Your task to perform on an android device: set default search engine in the chrome app Image 0: 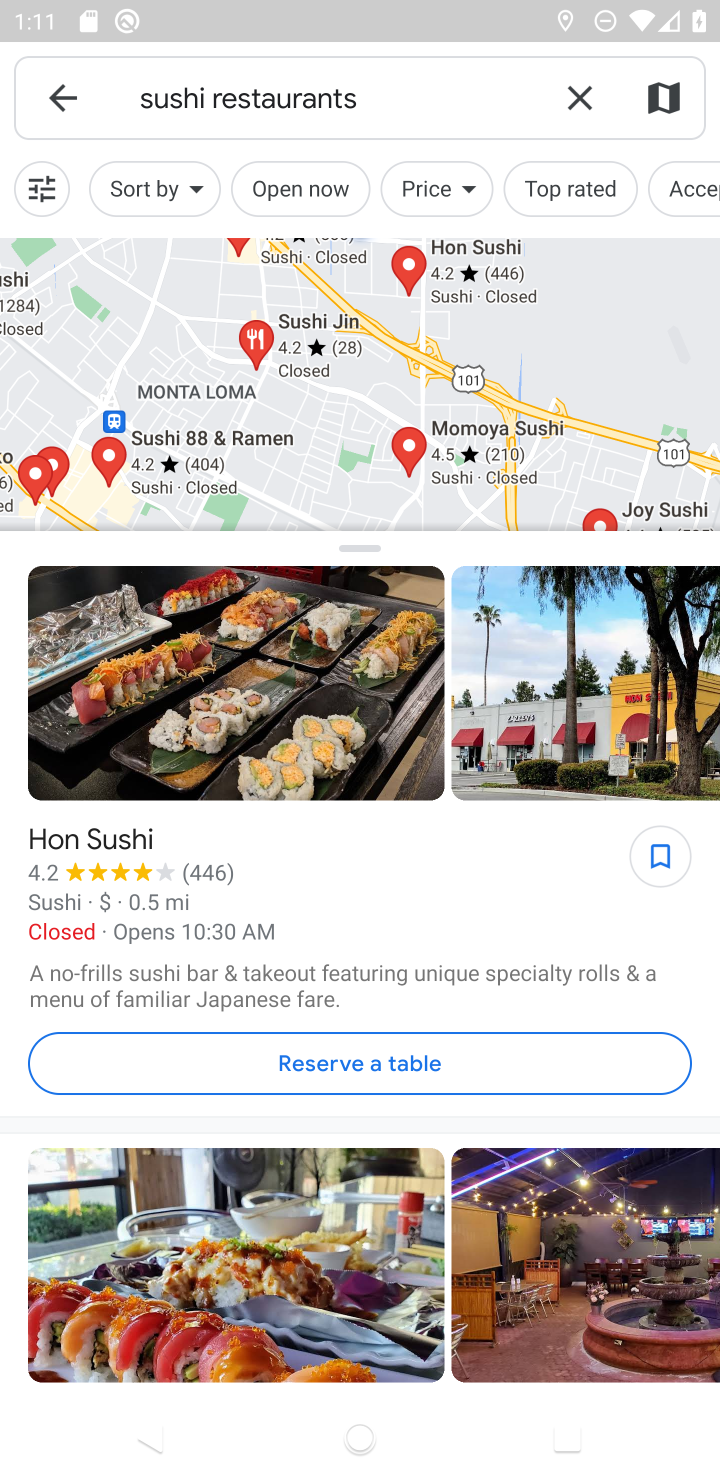
Step 0: press home button
Your task to perform on an android device: set default search engine in the chrome app Image 1: 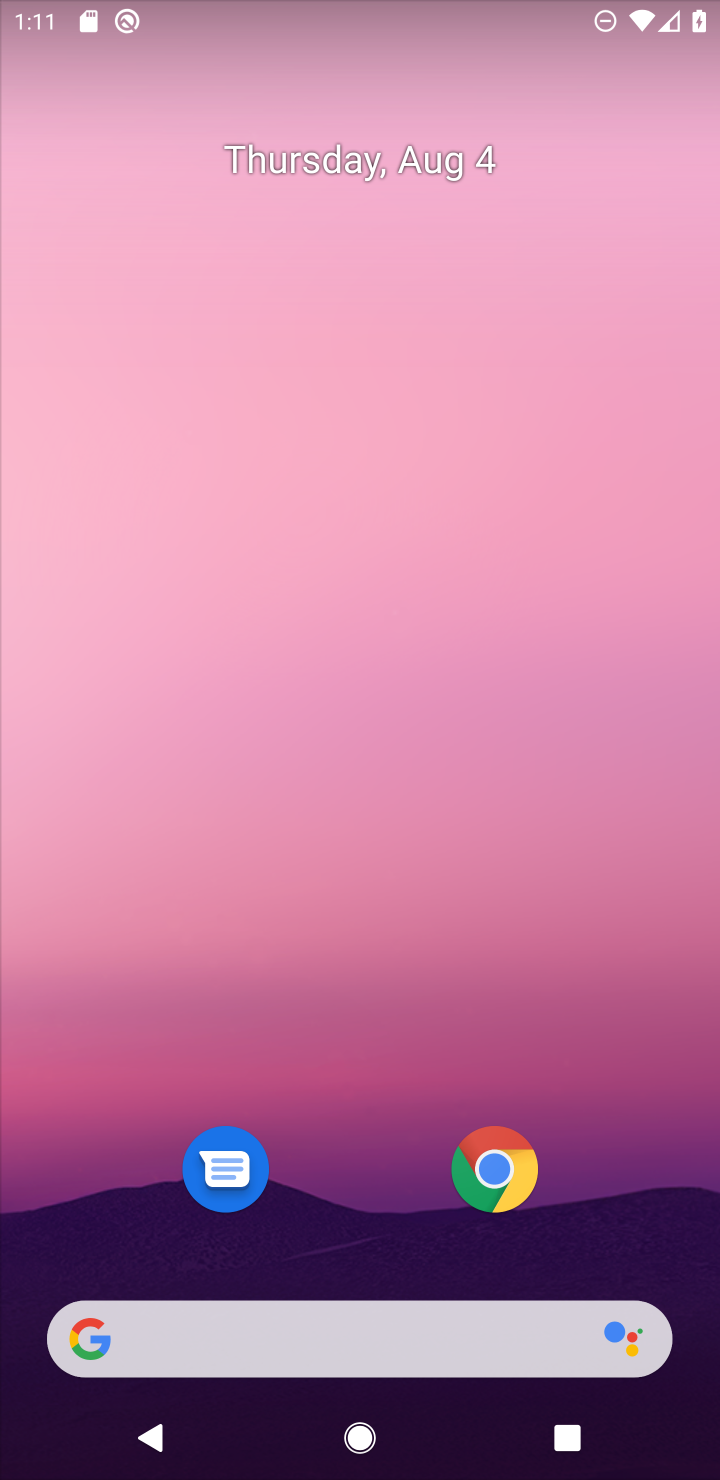
Step 1: click (508, 1183)
Your task to perform on an android device: set default search engine in the chrome app Image 2: 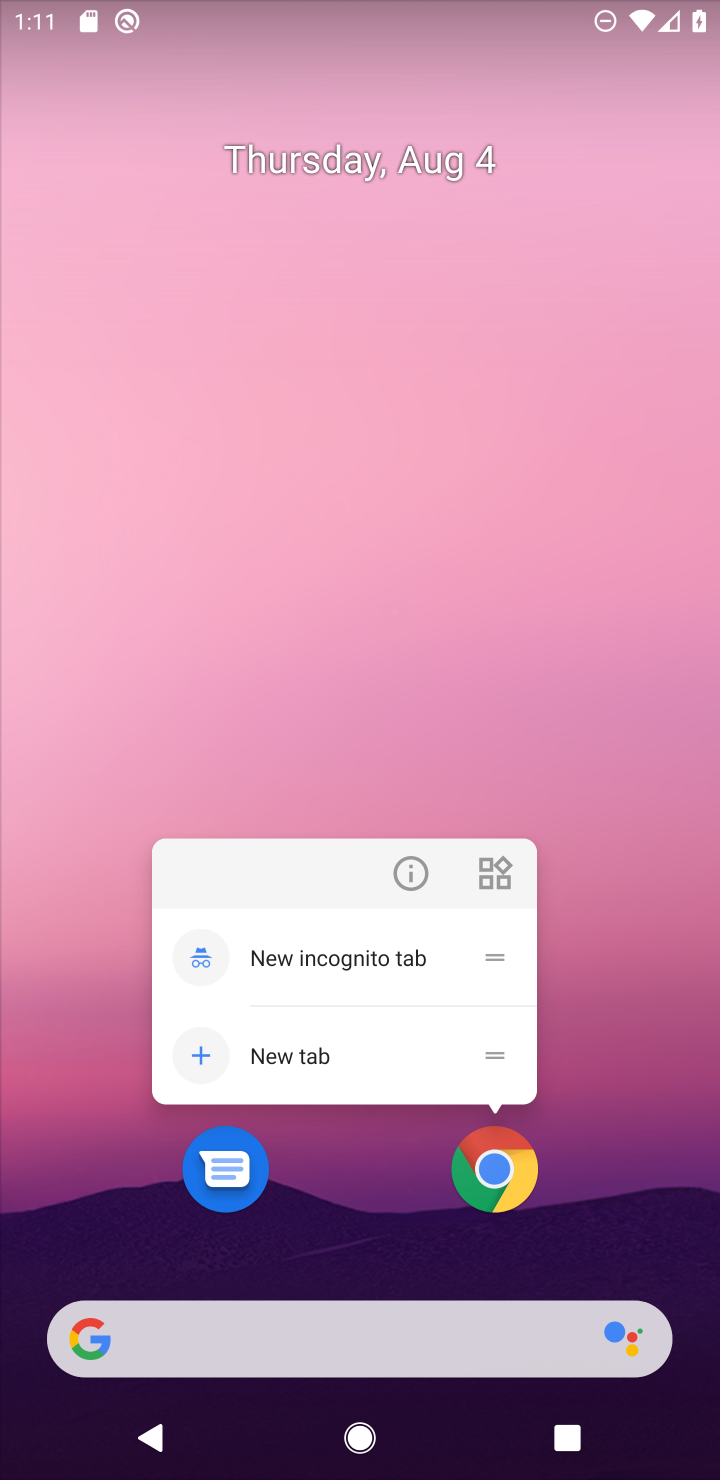
Step 2: click (508, 1183)
Your task to perform on an android device: set default search engine in the chrome app Image 3: 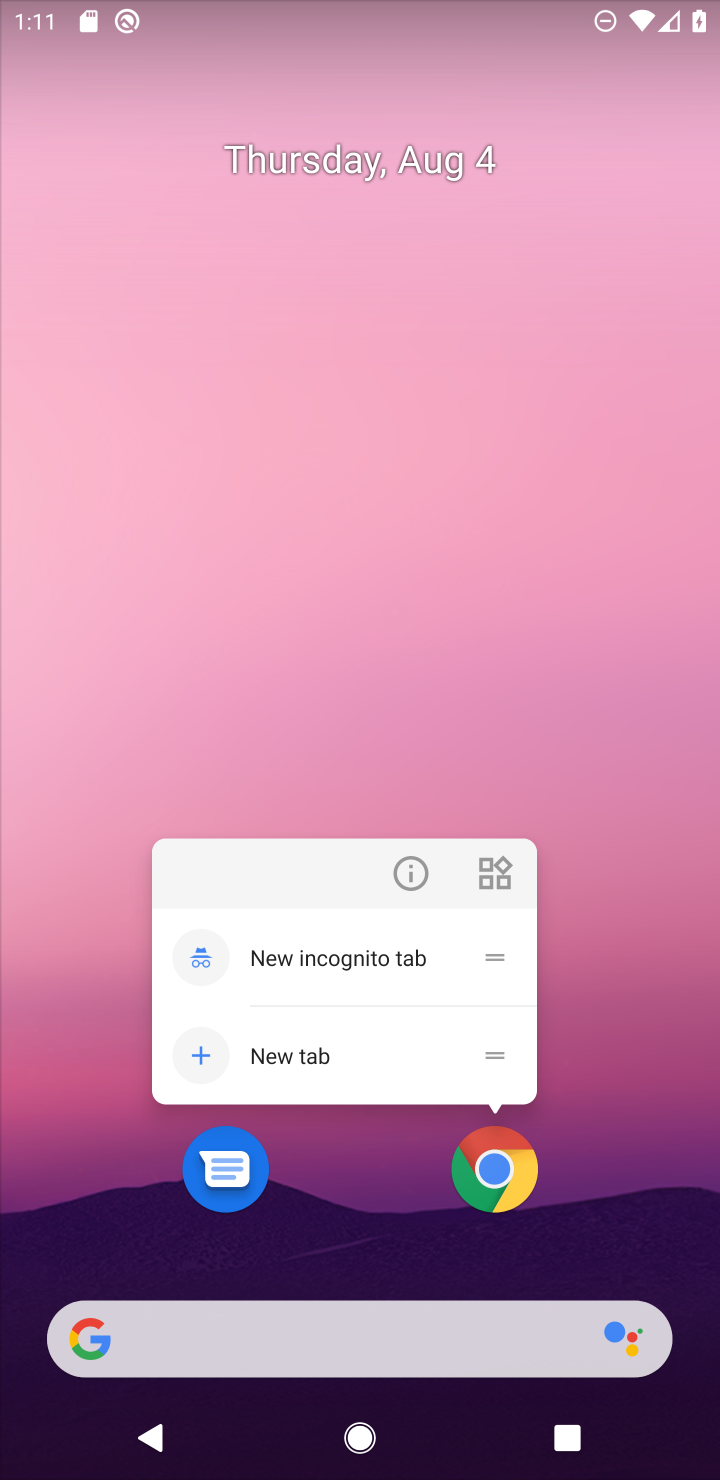
Step 3: click (506, 1186)
Your task to perform on an android device: set default search engine in the chrome app Image 4: 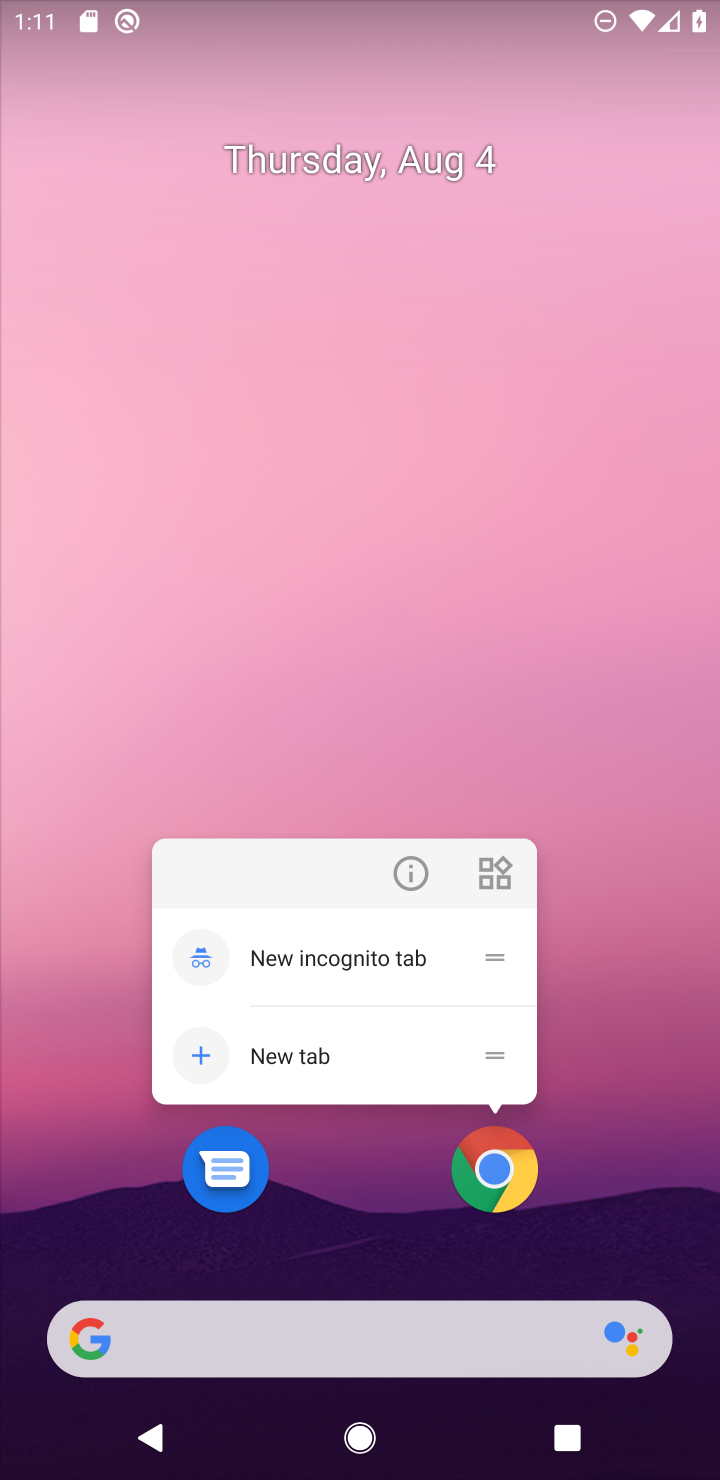
Step 4: click (506, 1186)
Your task to perform on an android device: set default search engine in the chrome app Image 5: 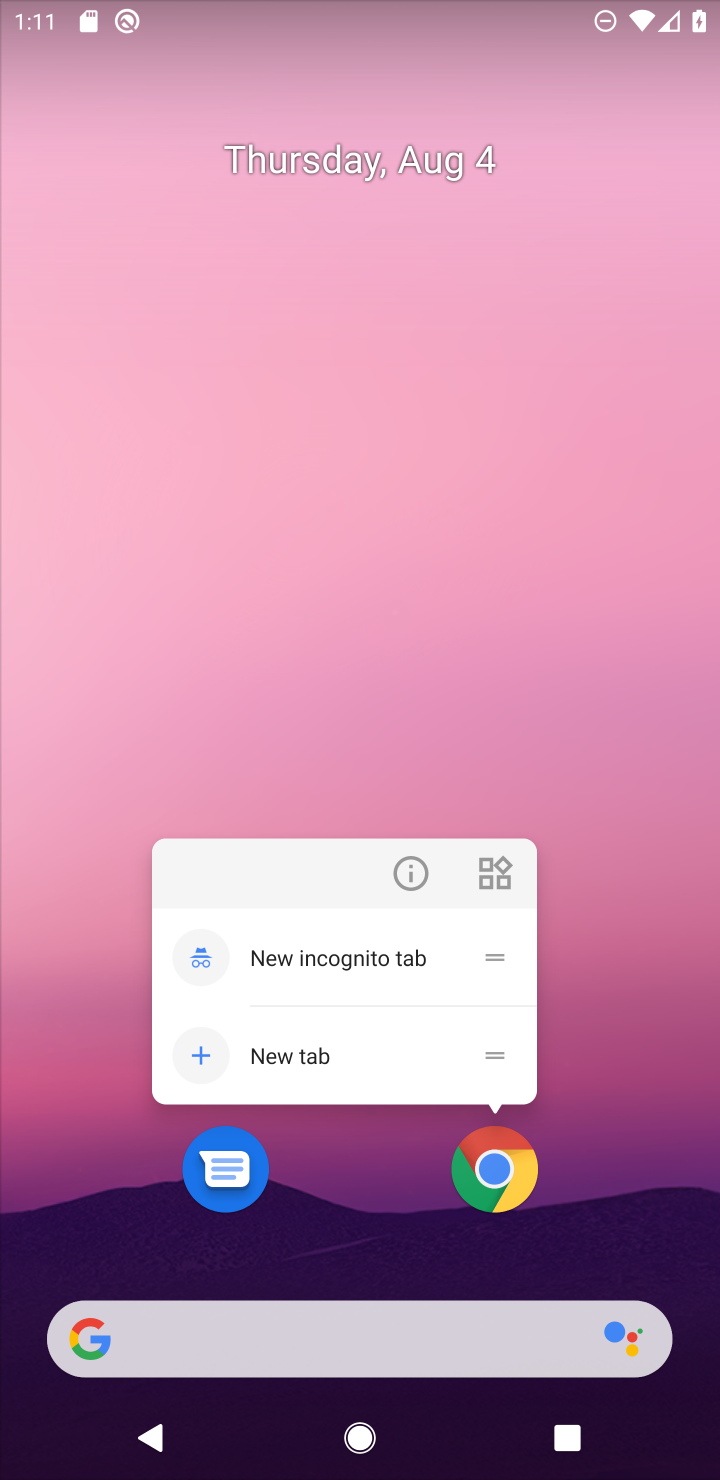
Step 5: click (497, 1177)
Your task to perform on an android device: set default search engine in the chrome app Image 6: 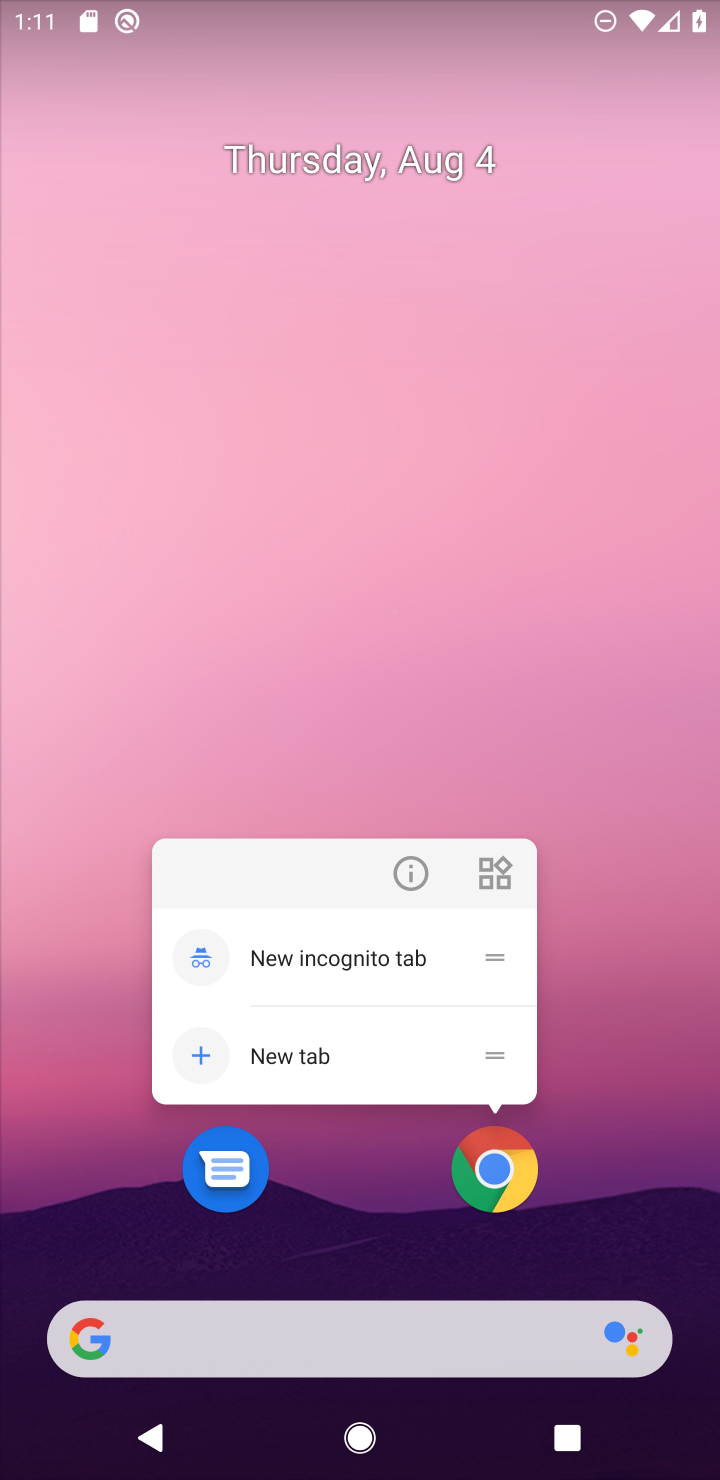
Step 6: click (497, 1177)
Your task to perform on an android device: set default search engine in the chrome app Image 7: 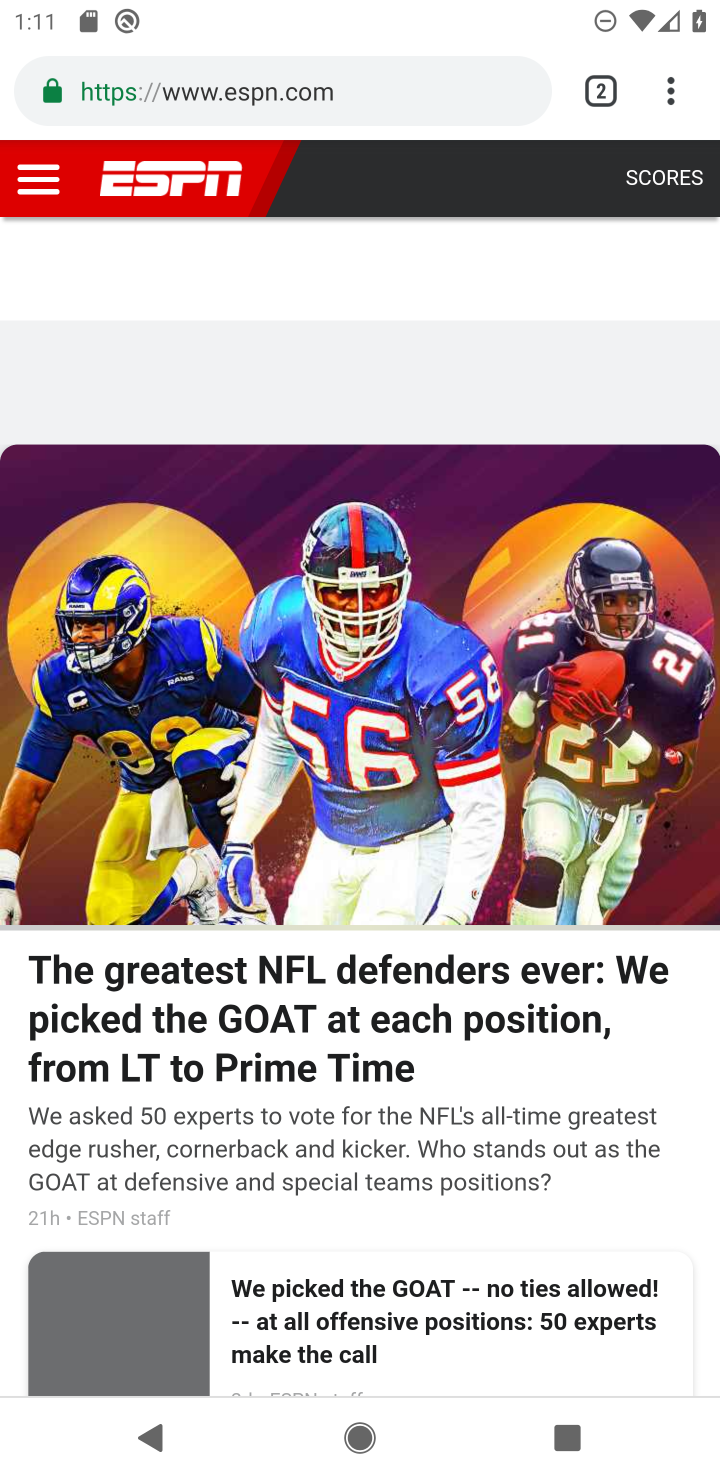
Step 7: drag from (676, 81) to (395, 1082)
Your task to perform on an android device: set default search engine in the chrome app Image 8: 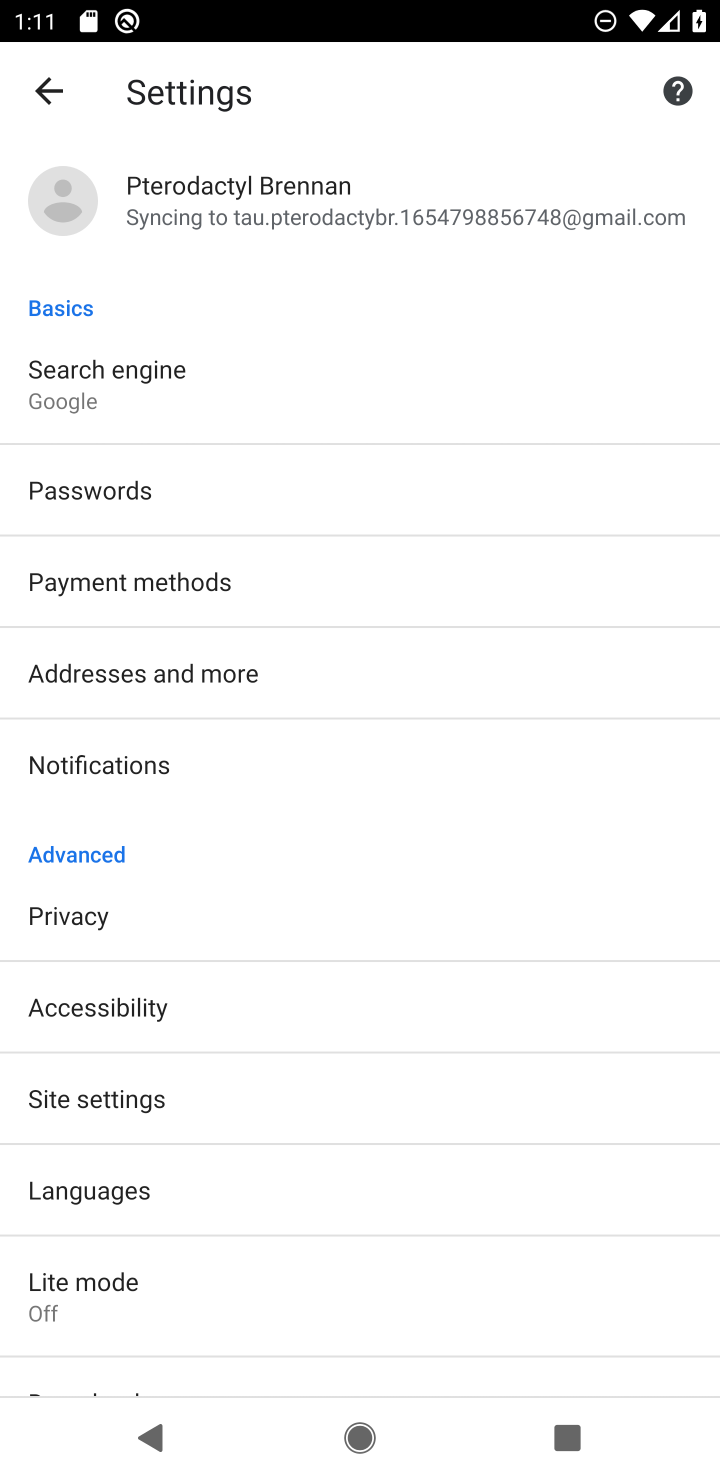
Step 8: click (65, 373)
Your task to perform on an android device: set default search engine in the chrome app Image 9: 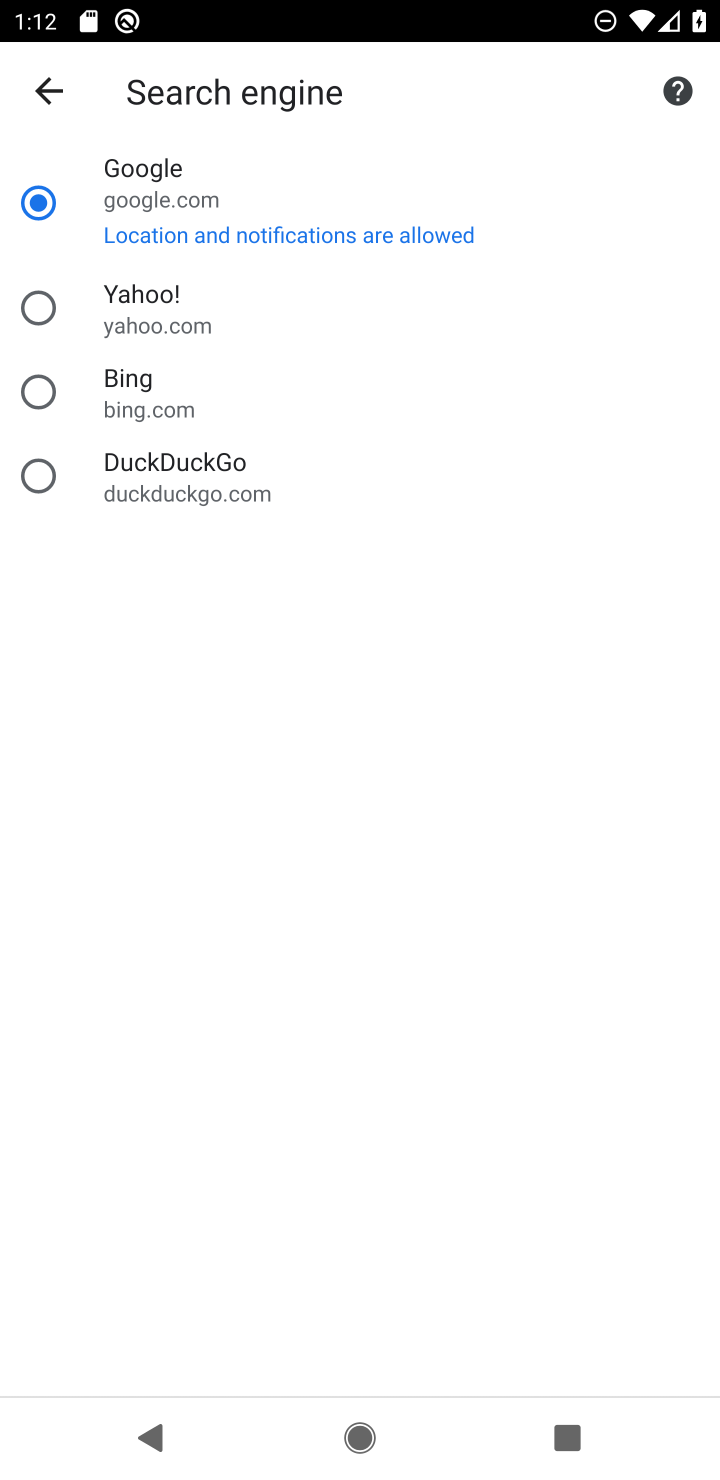
Step 9: click (27, 313)
Your task to perform on an android device: set default search engine in the chrome app Image 10: 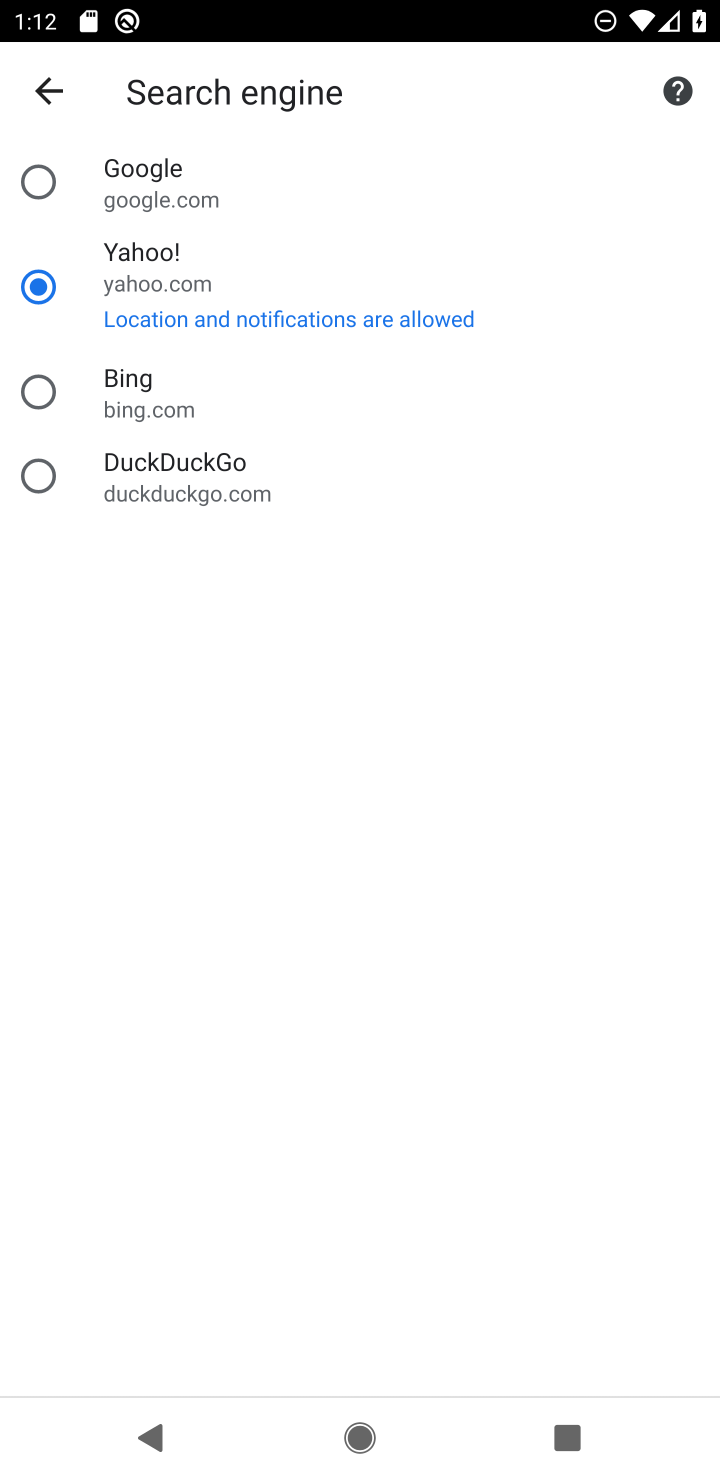
Step 10: task complete